Your task to perform on an android device: open a bookmark in the chrome app Image 0: 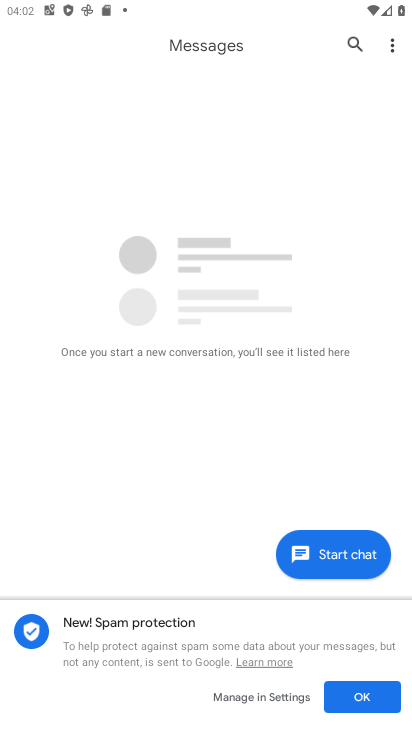
Step 0: press home button
Your task to perform on an android device: open a bookmark in the chrome app Image 1: 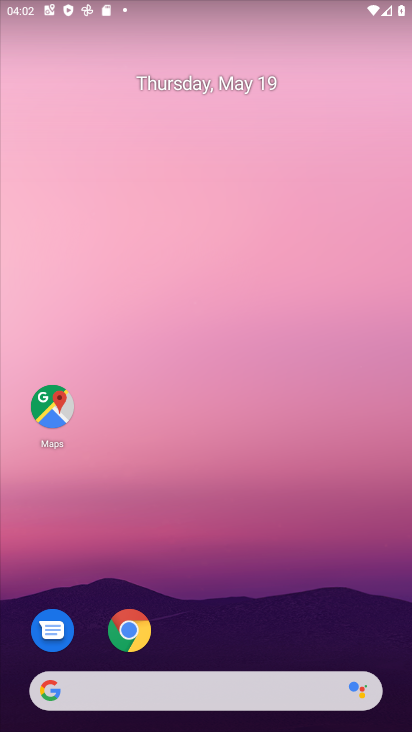
Step 1: click (129, 622)
Your task to perform on an android device: open a bookmark in the chrome app Image 2: 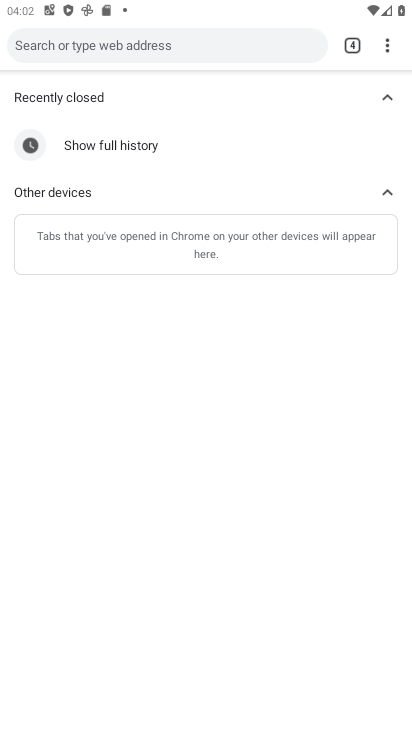
Step 2: click (384, 51)
Your task to perform on an android device: open a bookmark in the chrome app Image 3: 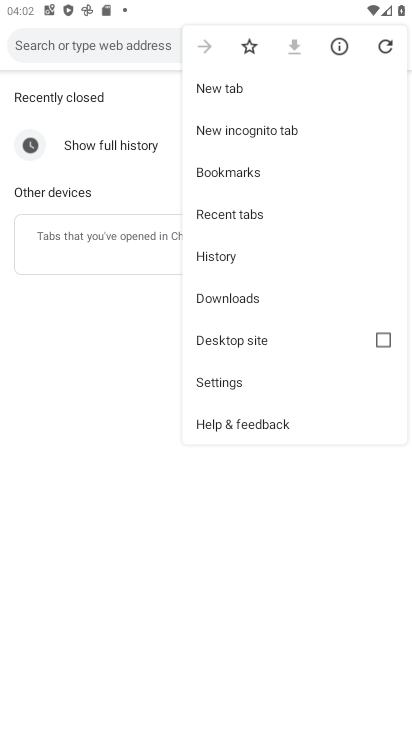
Step 3: click (219, 169)
Your task to perform on an android device: open a bookmark in the chrome app Image 4: 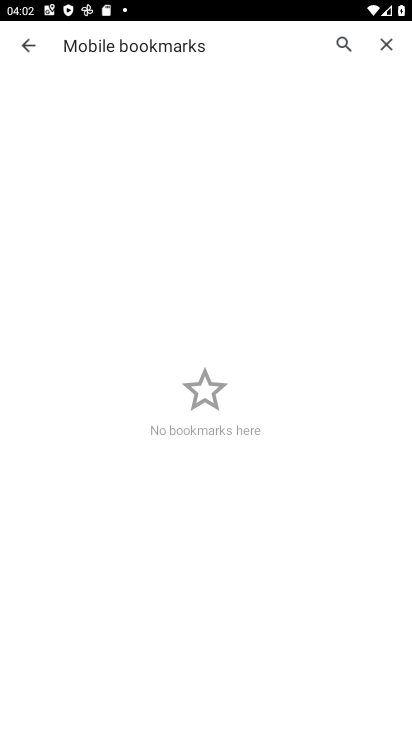
Step 4: task complete